Your task to perform on an android device: delete the emails in spam in the gmail app Image 0: 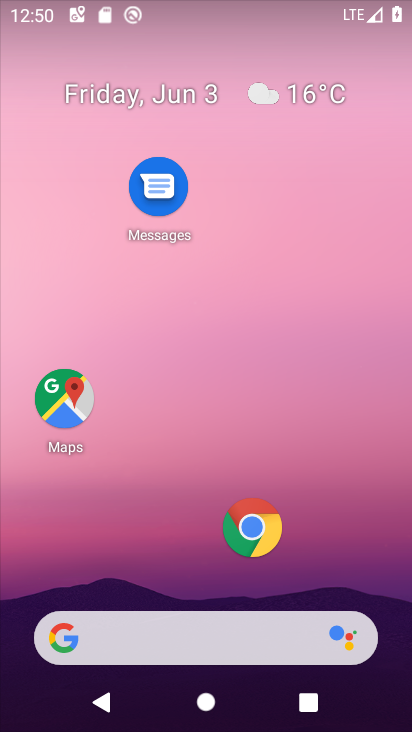
Step 0: drag from (198, 587) to (269, 15)
Your task to perform on an android device: delete the emails in spam in the gmail app Image 1: 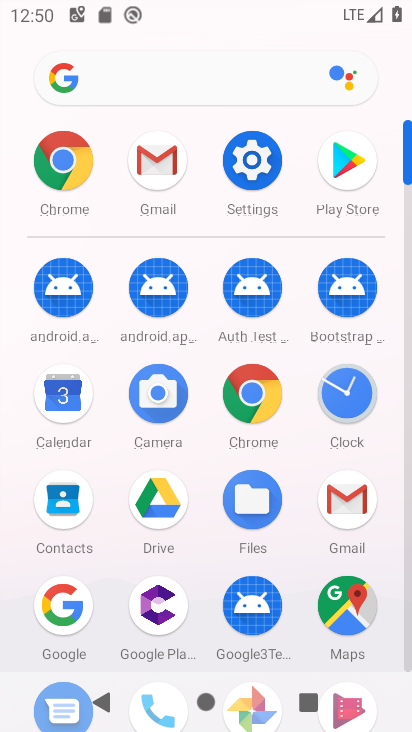
Step 1: click (158, 152)
Your task to perform on an android device: delete the emails in spam in the gmail app Image 2: 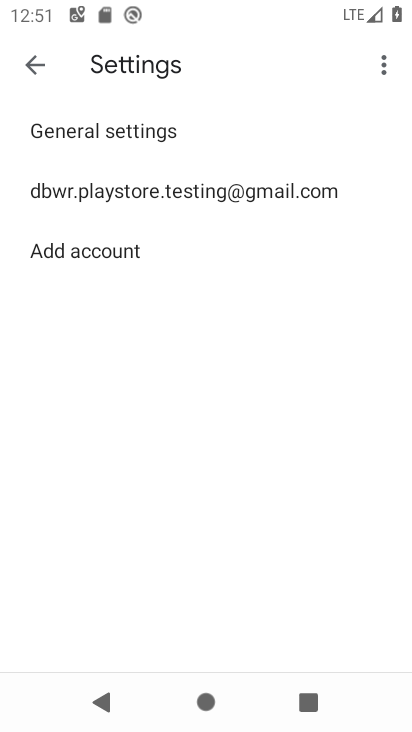
Step 2: click (30, 75)
Your task to perform on an android device: delete the emails in spam in the gmail app Image 3: 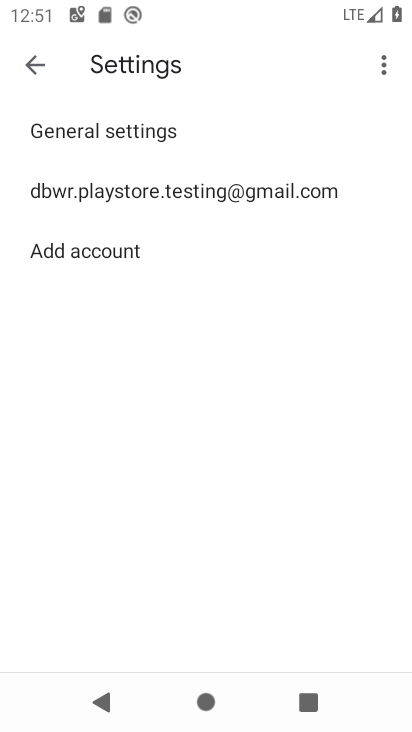
Step 3: click (33, 63)
Your task to perform on an android device: delete the emails in spam in the gmail app Image 4: 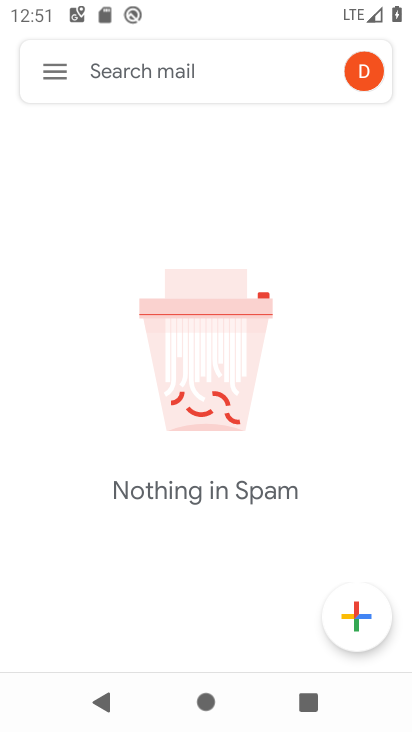
Step 4: click (49, 69)
Your task to perform on an android device: delete the emails in spam in the gmail app Image 5: 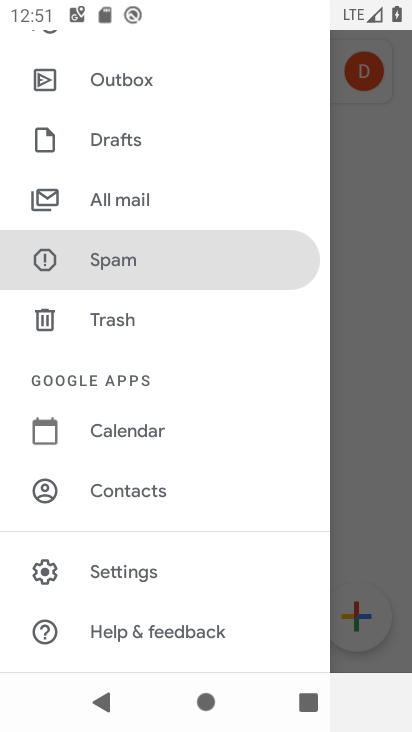
Step 5: click (112, 254)
Your task to perform on an android device: delete the emails in spam in the gmail app Image 6: 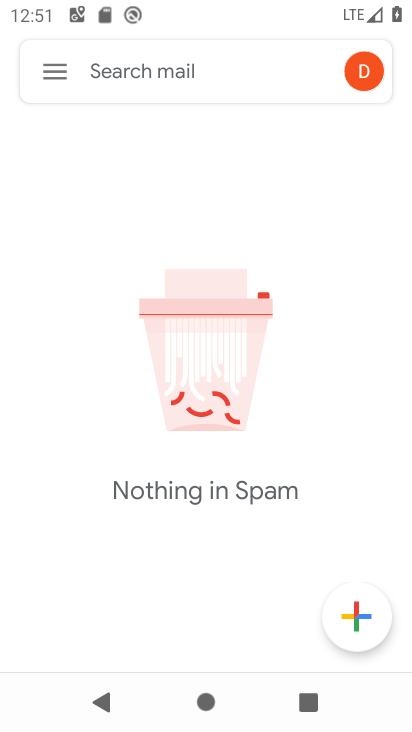
Step 6: task complete